Your task to perform on an android device: change notifications settings Image 0: 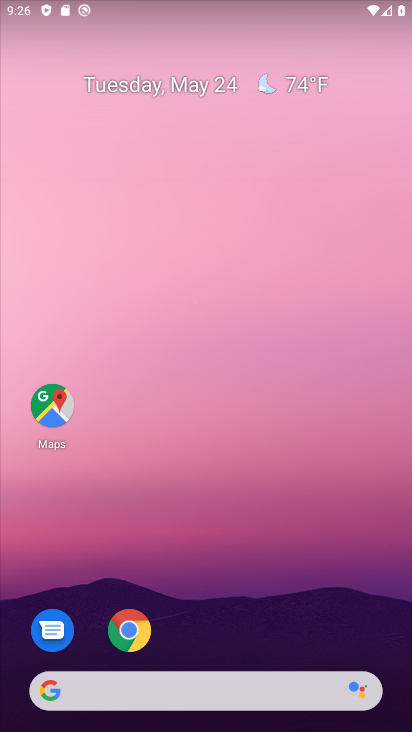
Step 0: drag from (306, 669) to (278, 74)
Your task to perform on an android device: change notifications settings Image 1: 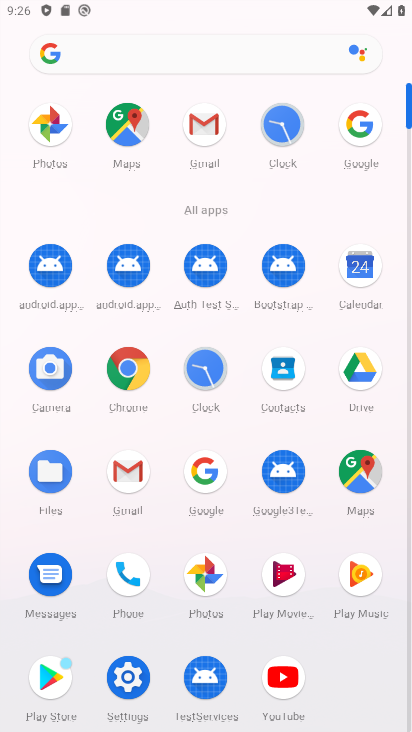
Step 1: click (127, 667)
Your task to perform on an android device: change notifications settings Image 2: 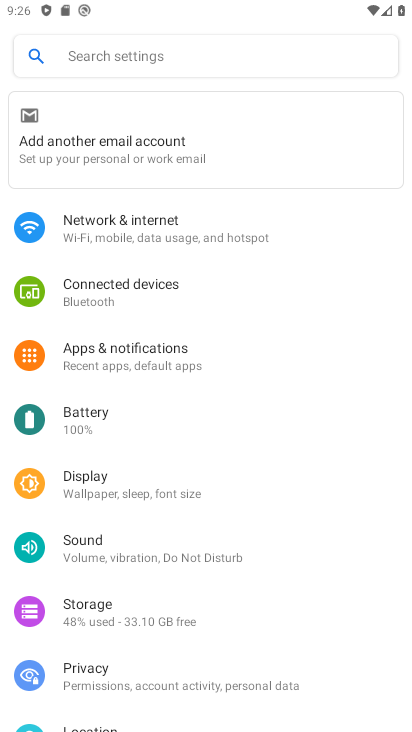
Step 2: click (123, 361)
Your task to perform on an android device: change notifications settings Image 3: 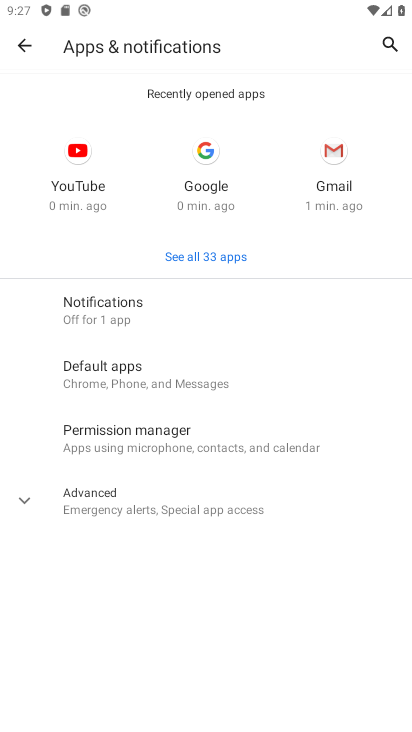
Step 3: click (140, 312)
Your task to perform on an android device: change notifications settings Image 4: 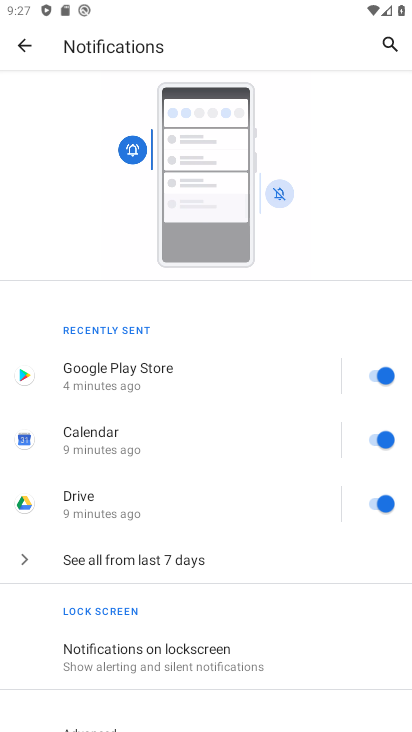
Step 4: drag from (154, 607) to (143, 380)
Your task to perform on an android device: change notifications settings Image 5: 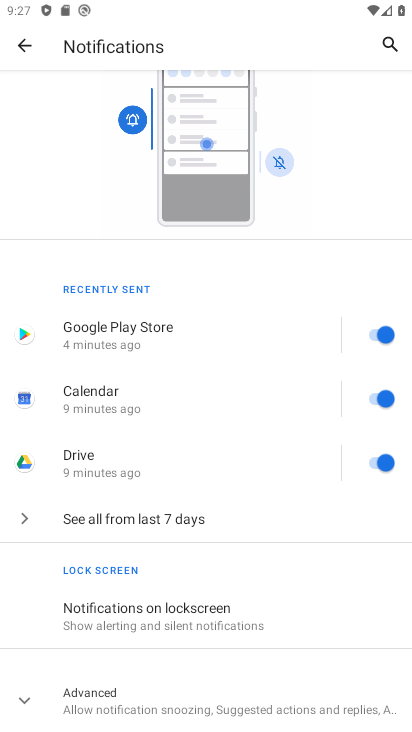
Step 5: click (152, 682)
Your task to perform on an android device: change notifications settings Image 6: 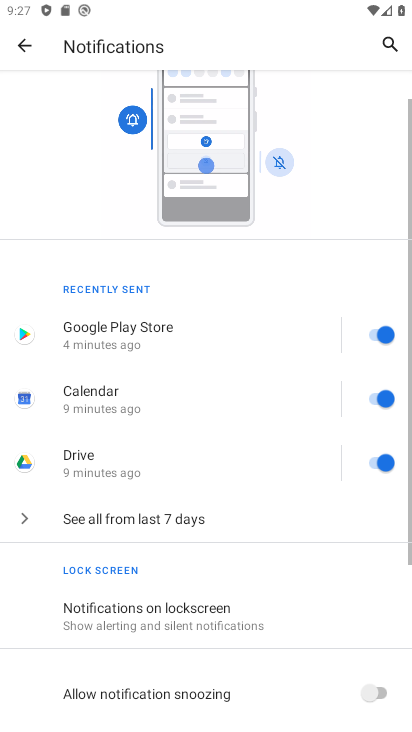
Step 6: drag from (179, 660) to (178, 383)
Your task to perform on an android device: change notifications settings Image 7: 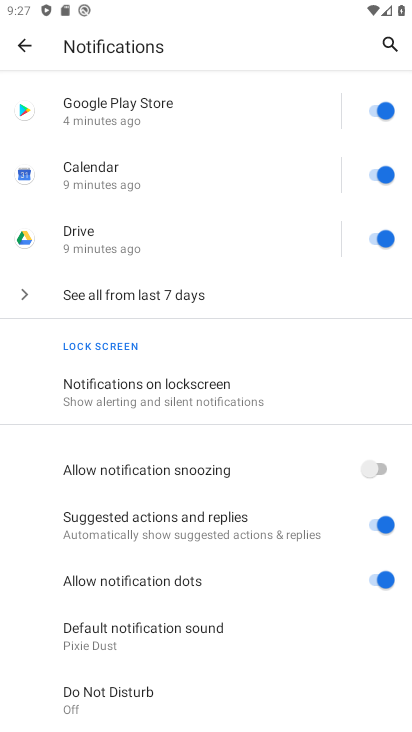
Step 7: click (383, 525)
Your task to perform on an android device: change notifications settings Image 8: 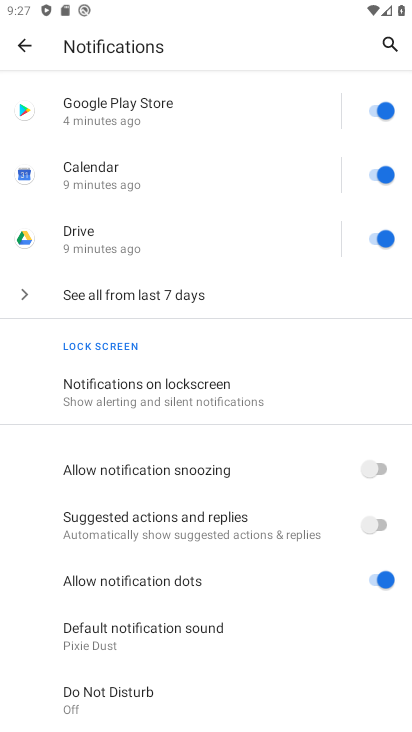
Step 8: click (377, 585)
Your task to perform on an android device: change notifications settings Image 9: 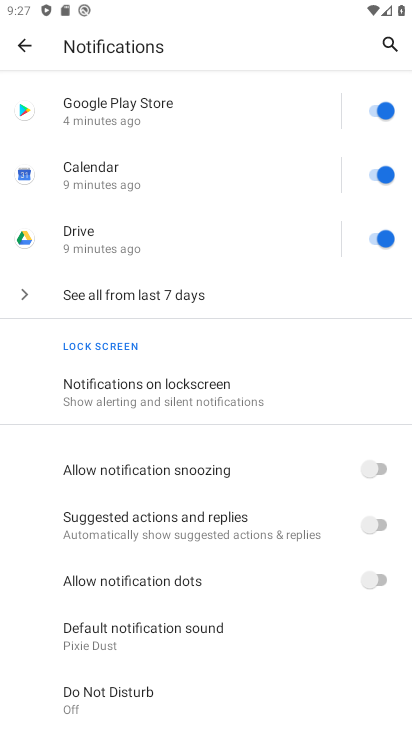
Step 9: click (381, 461)
Your task to perform on an android device: change notifications settings Image 10: 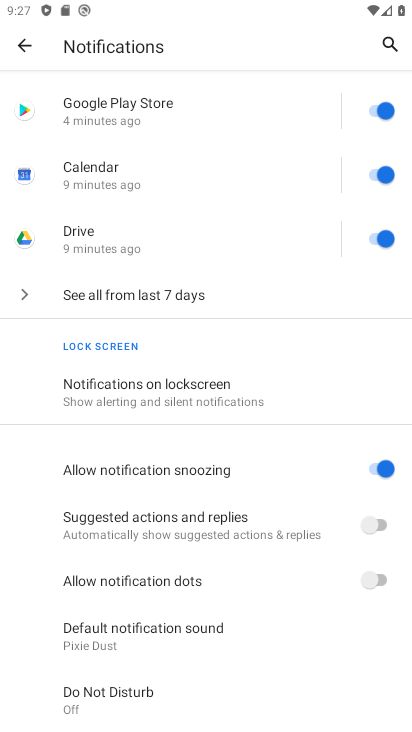
Step 10: task complete